Your task to perform on an android device: add a label to a message in the gmail app Image 0: 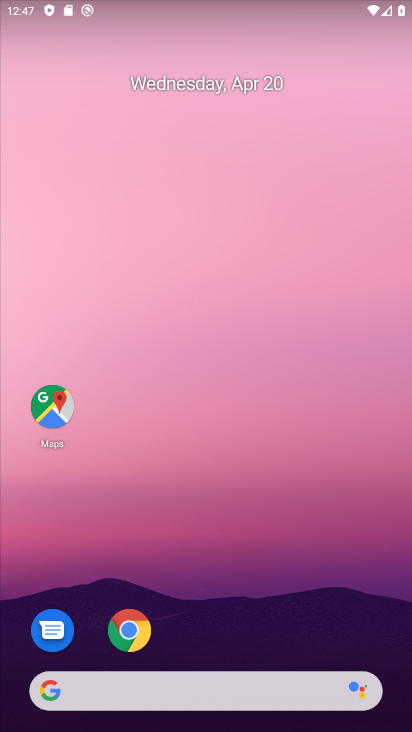
Step 0: drag from (314, 586) to (343, 113)
Your task to perform on an android device: add a label to a message in the gmail app Image 1: 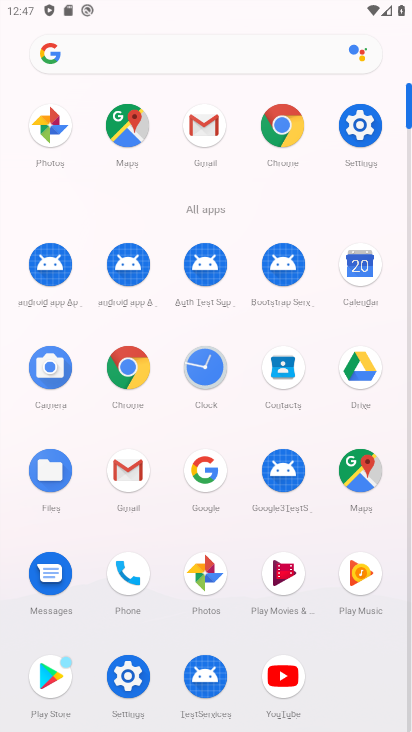
Step 1: click (122, 463)
Your task to perform on an android device: add a label to a message in the gmail app Image 2: 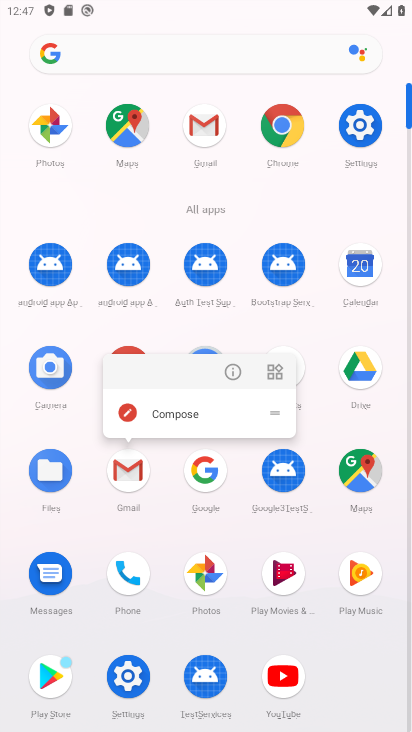
Step 2: click (132, 467)
Your task to perform on an android device: add a label to a message in the gmail app Image 3: 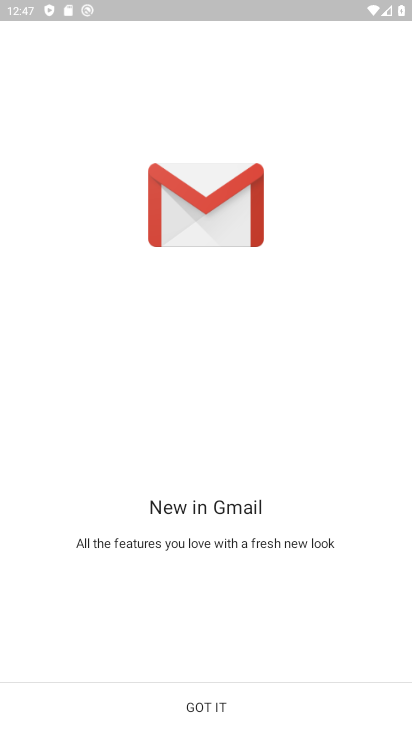
Step 3: click (216, 701)
Your task to perform on an android device: add a label to a message in the gmail app Image 4: 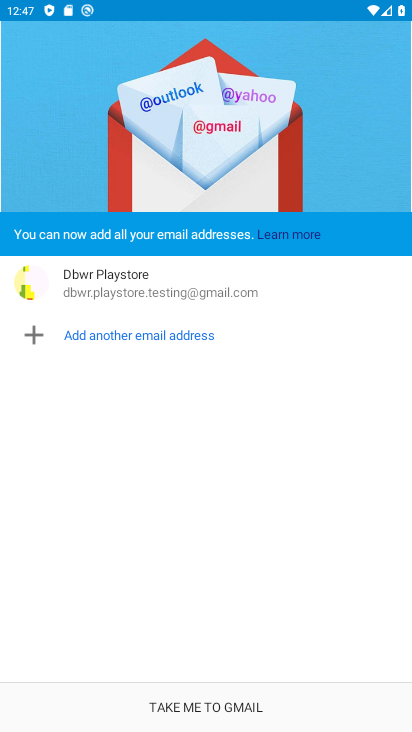
Step 4: click (216, 701)
Your task to perform on an android device: add a label to a message in the gmail app Image 5: 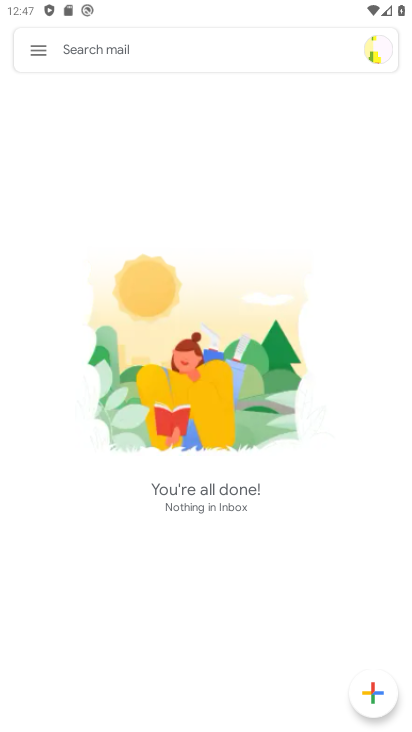
Step 5: task complete